Your task to perform on an android device: open wifi settings Image 0: 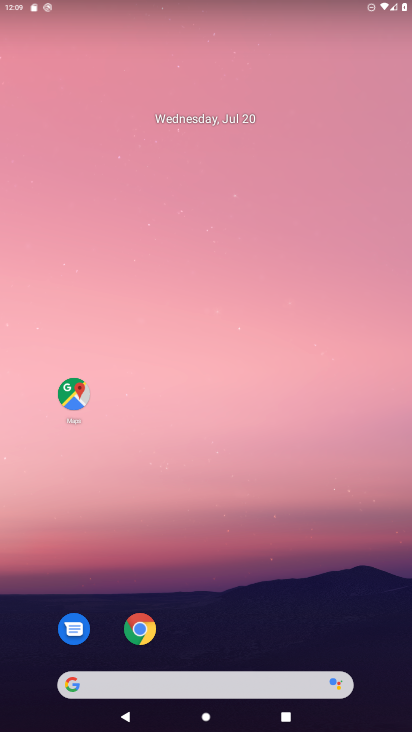
Step 0: drag from (198, 574) to (159, 120)
Your task to perform on an android device: open wifi settings Image 1: 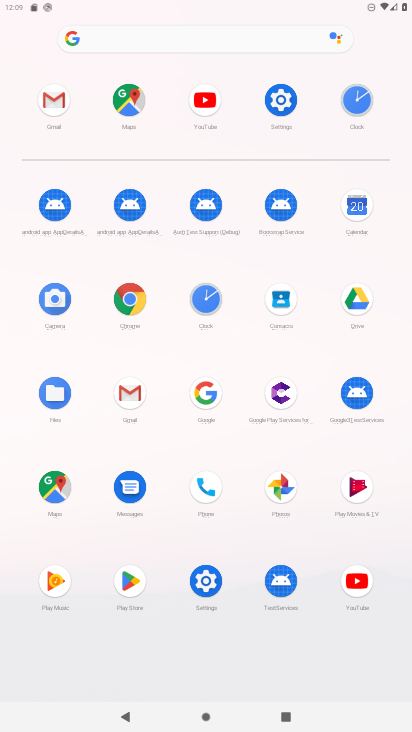
Step 1: click (276, 106)
Your task to perform on an android device: open wifi settings Image 2: 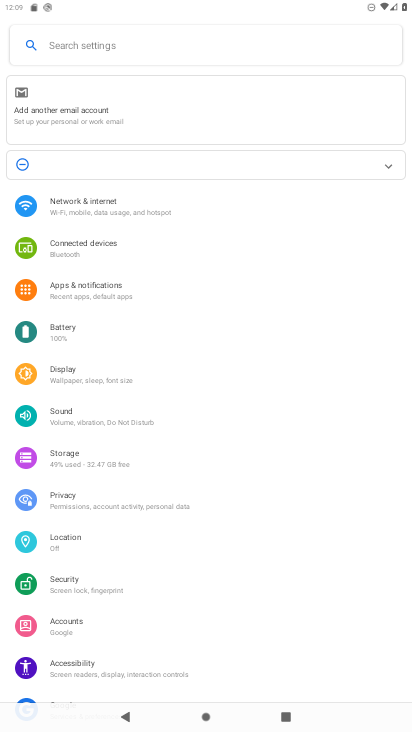
Step 2: click (138, 207)
Your task to perform on an android device: open wifi settings Image 3: 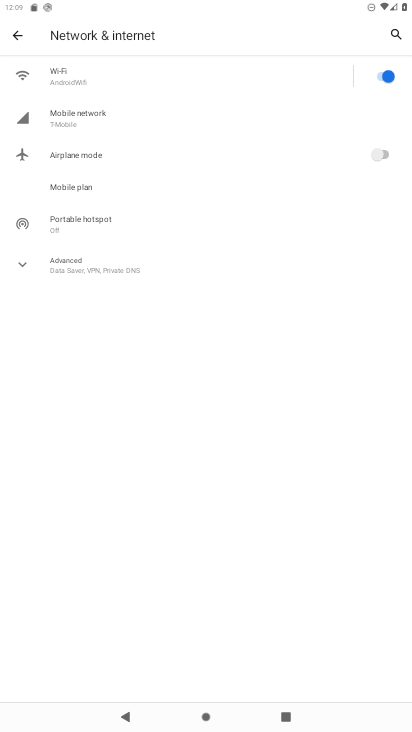
Step 3: click (152, 72)
Your task to perform on an android device: open wifi settings Image 4: 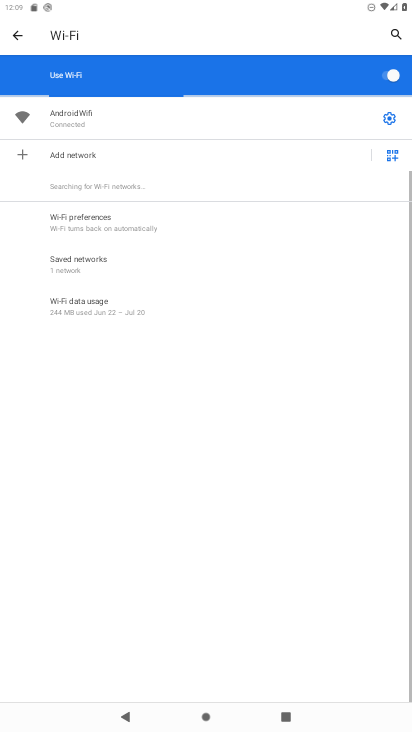
Step 4: task complete